Your task to perform on an android device: stop showing notifications on the lock screen Image 0: 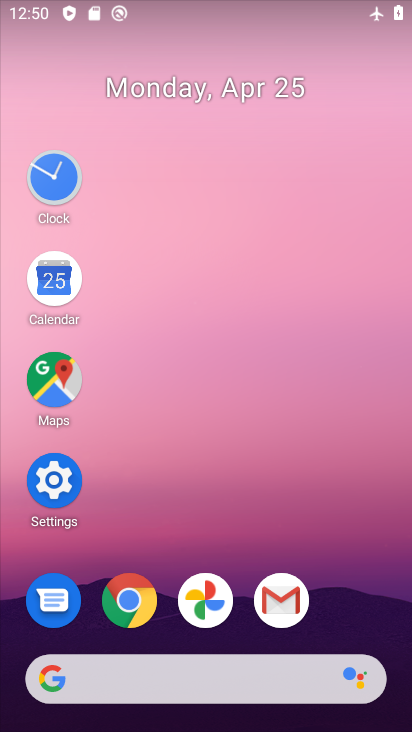
Step 0: click (45, 495)
Your task to perform on an android device: stop showing notifications on the lock screen Image 1: 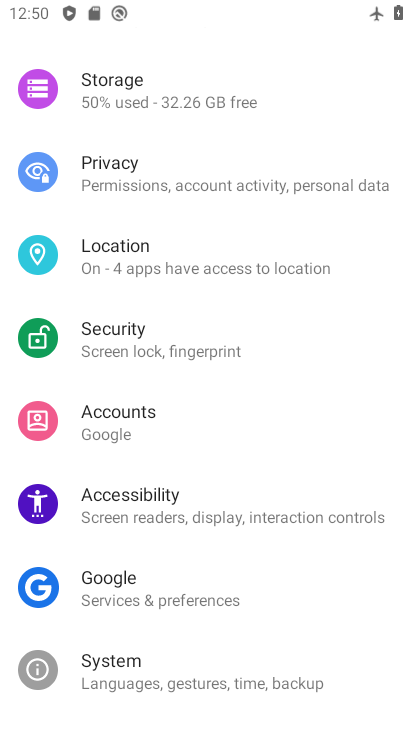
Step 1: drag from (225, 143) to (401, 642)
Your task to perform on an android device: stop showing notifications on the lock screen Image 2: 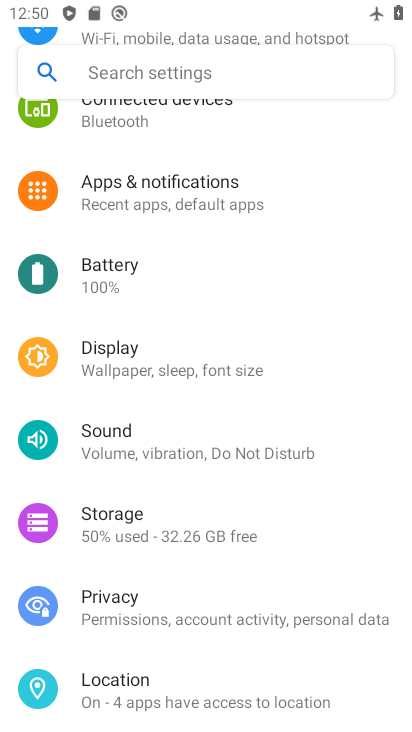
Step 2: click (204, 181)
Your task to perform on an android device: stop showing notifications on the lock screen Image 3: 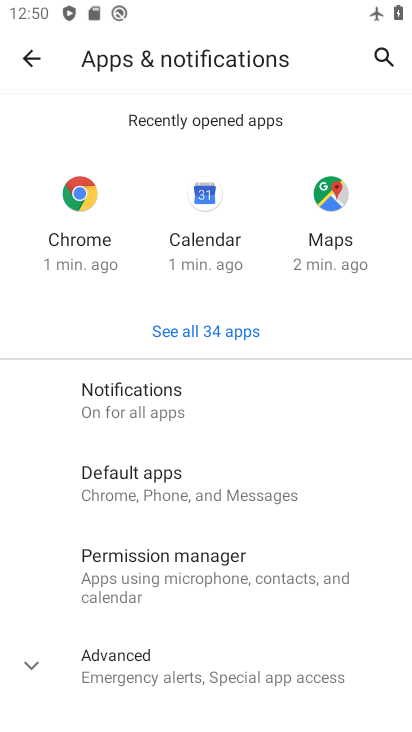
Step 3: click (157, 395)
Your task to perform on an android device: stop showing notifications on the lock screen Image 4: 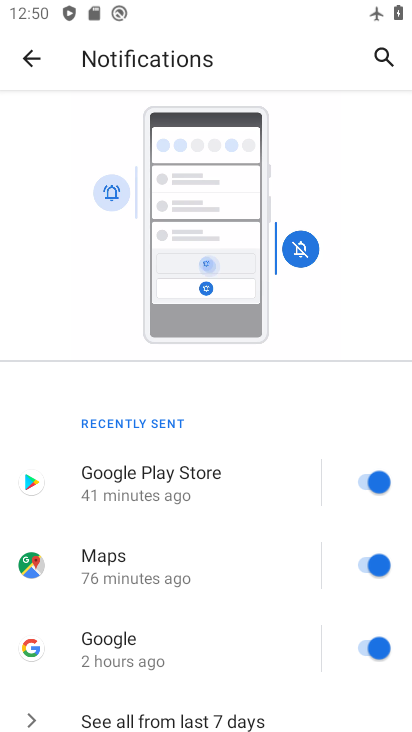
Step 4: drag from (216, 591) to (121, 161)
Your task to perform on an android device: stop showing notifications on the lock screen Image 5: 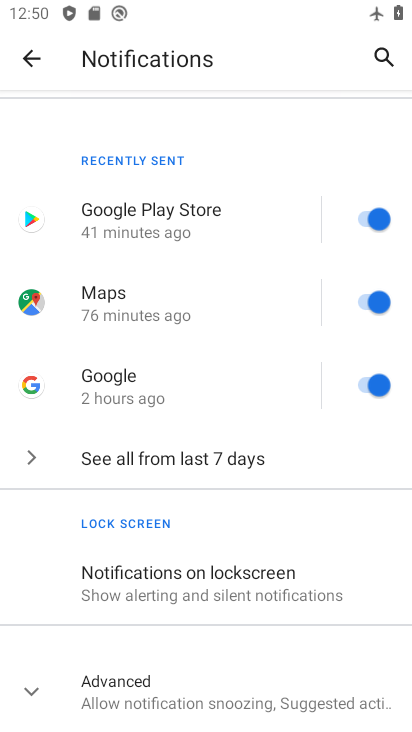
Step 5: click (172, 573)
Your task to perform on an android device: stop showing notifications on the lock screen Image 6: 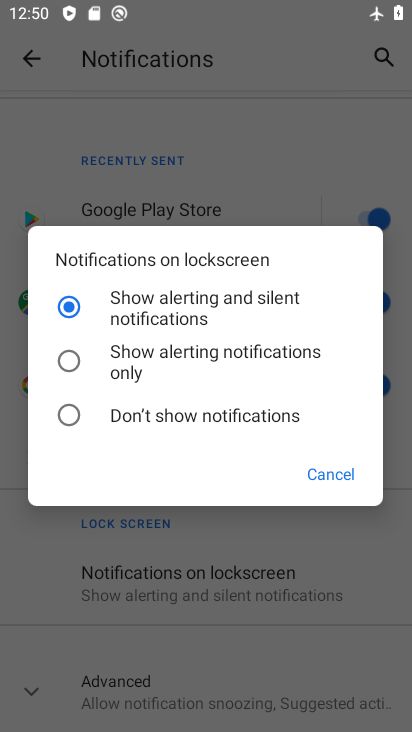
Step 6: click (71, 418)
Your task to perform on an android device: stop showing notifications on the lock screen Image 7: 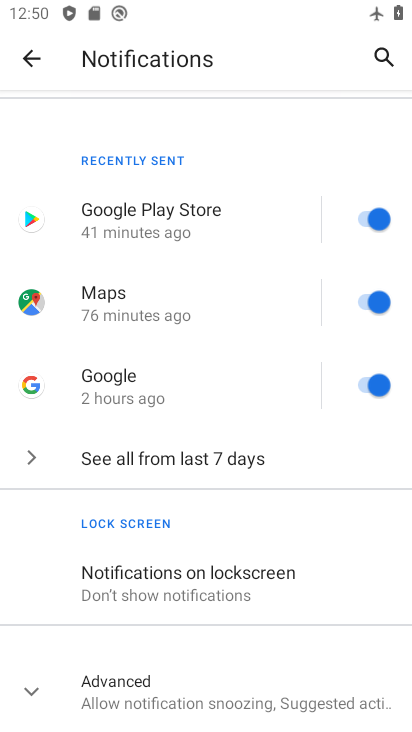
Step 7: task complete